Your task to perform on an android device: Open internet settings Image 0: 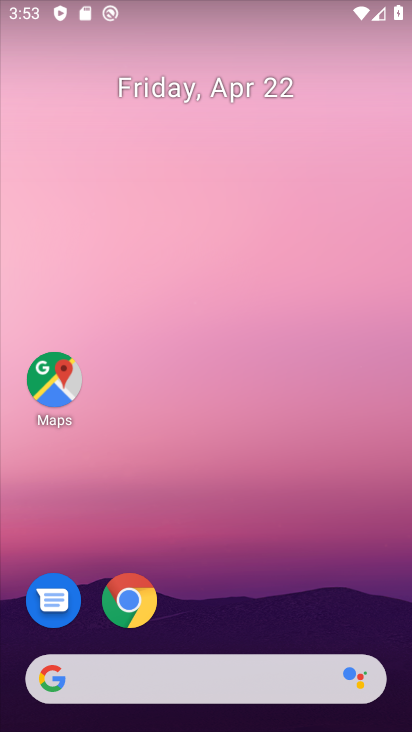
Step 0: drag from (217, 610) to (199, 69)
Your task to perform on an android device: Open internet settings Image 1: 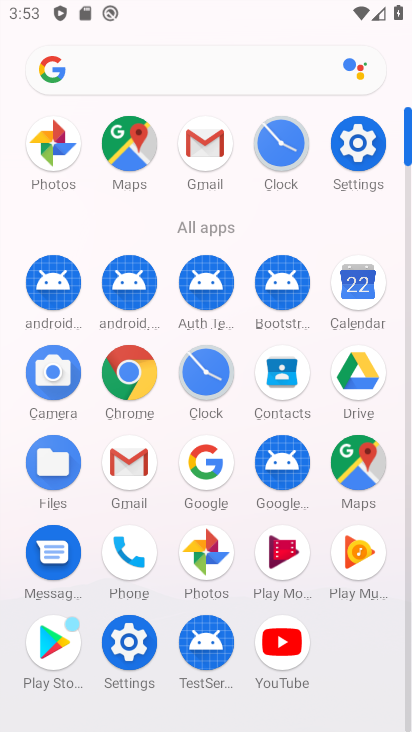
Step 1: click (359, 142)
Your task to perform on an android device: Open internet settings Image 2: 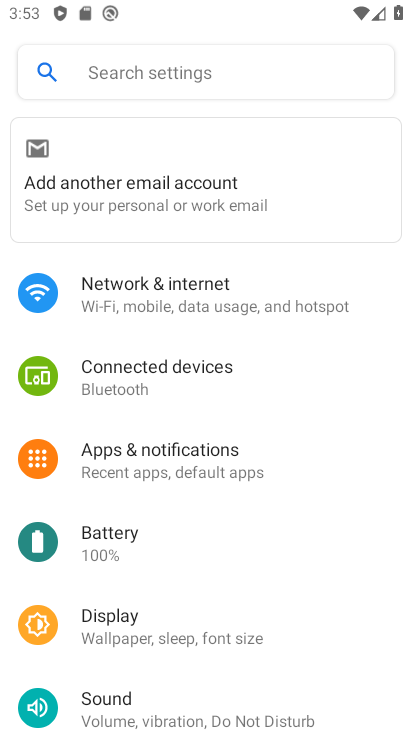
Step 2: click (212, 282)
Your task to perform on an android device: Open internet settings Image 3: 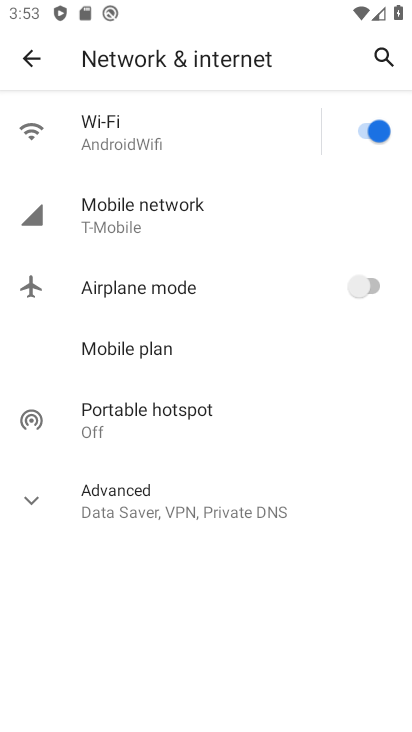
Step 3: click (113, 126)
Your task to perform on an android device: Open internet settings Image 4: 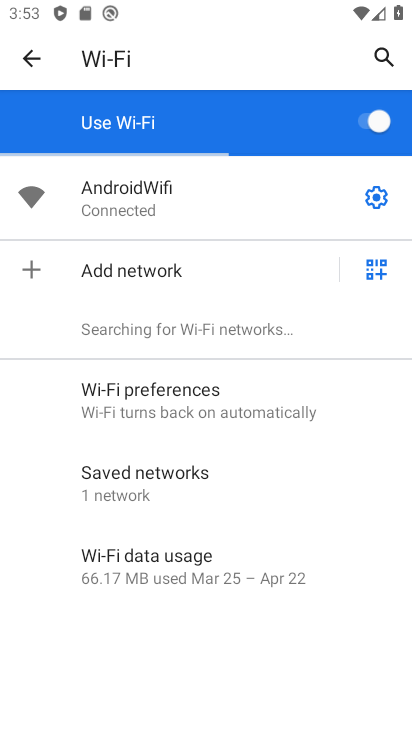
Step 4: click (377, 196)
Your task to perform on an android device: Open internet settings Image 5: 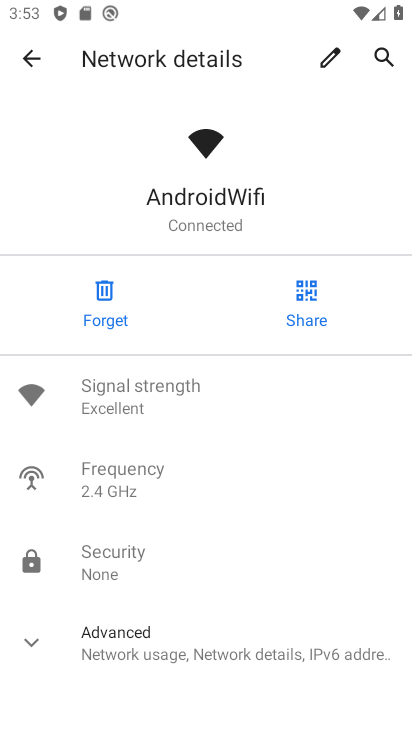
Step 5: task complete